Your task to perform on an android device: find photos in the google photos app Image 0: 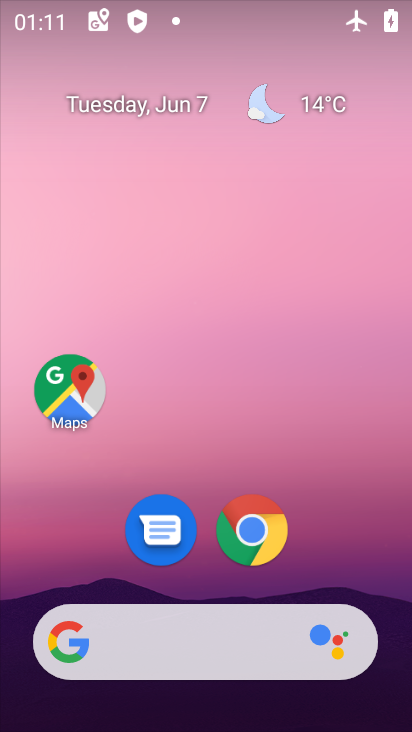
Step 0: drag from (288, 556) to (284, 249)
Your task to perform on an android device: find photos in the google photos app Image 1: 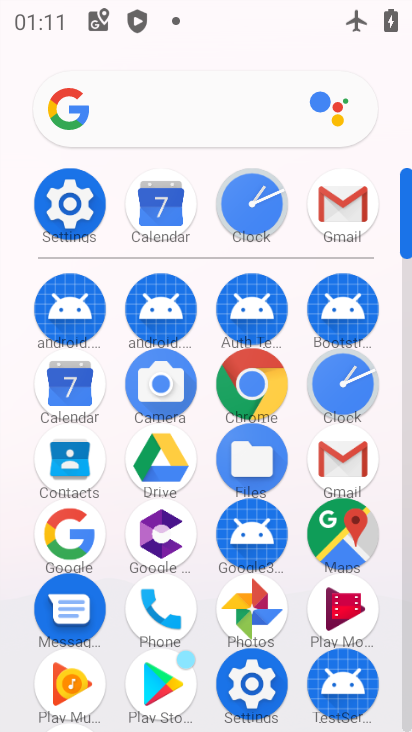
Step 1: click (241, 598)
Your task to perform on an android device: find photos in the google photos app Image 2: 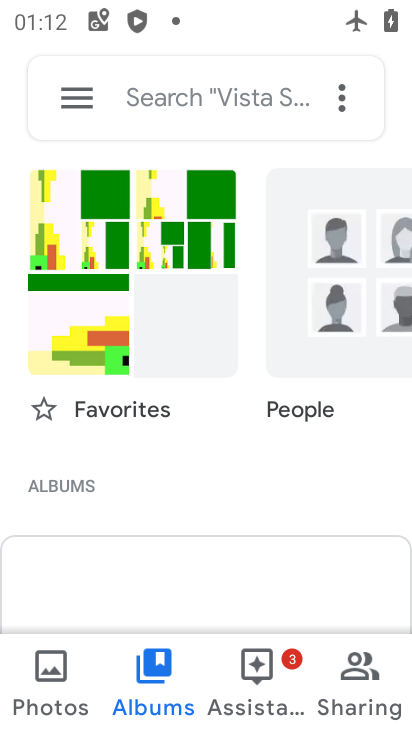
Step 2: task complete